Your task to perform on an android device: turn off airplane mode Image 0: 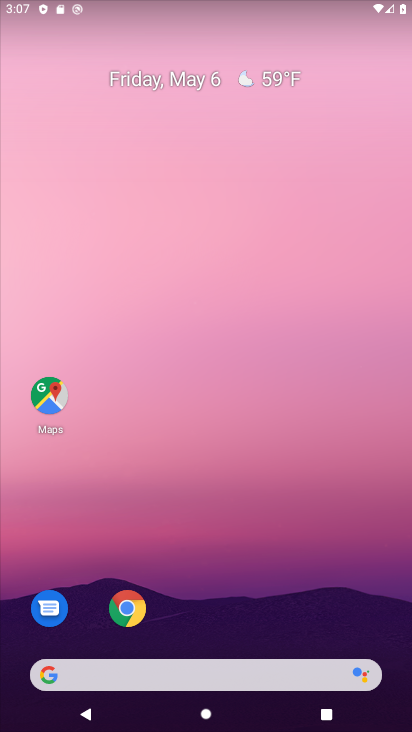
Step 0: drag from (197, 654) to (278, 171)
Your task to perform on an android device: turn off airplane mode Image 1: 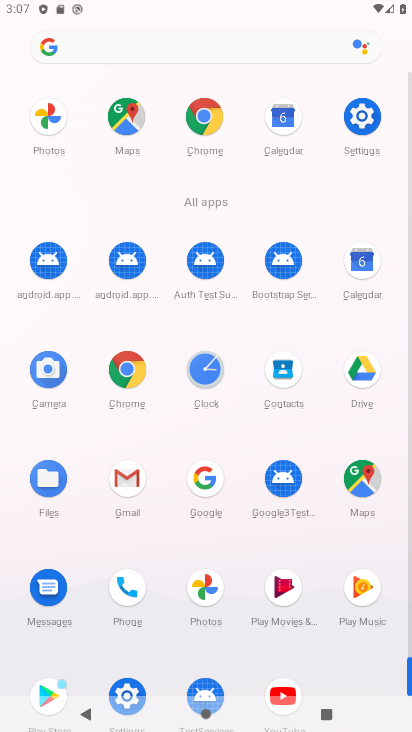
Step 1: drag from (134, 639) to (182, 451)
Your task to perform on an android device: turn off airplane mode Image 2: 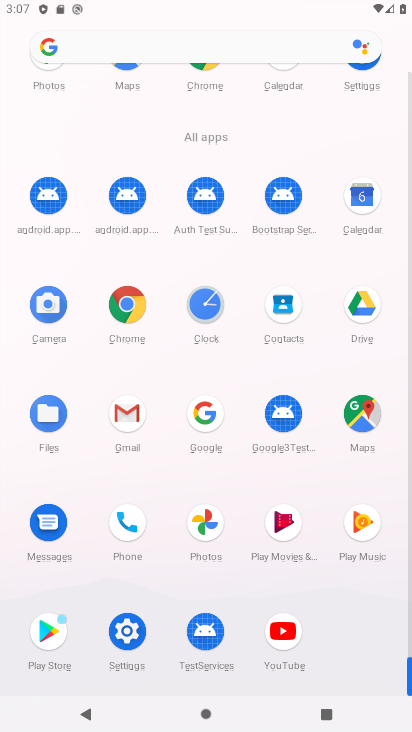
Step 2: click (127, 648)
Your task to perform on an android device: turn off airplane mode Image 3: 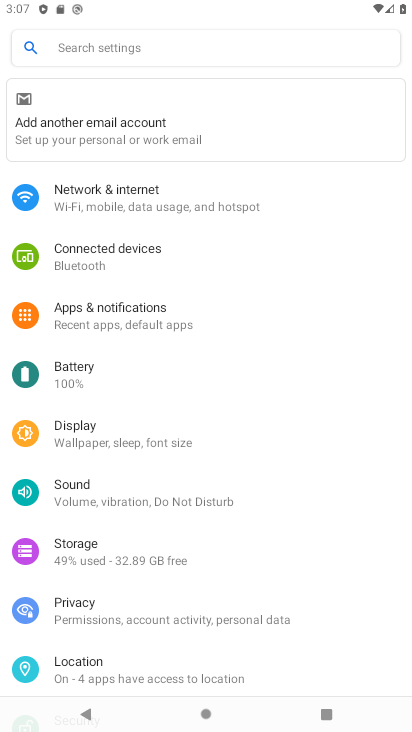
Step 3: click (189, 204)
Your task to perform on an android device: turn off airplane mode Image 4: 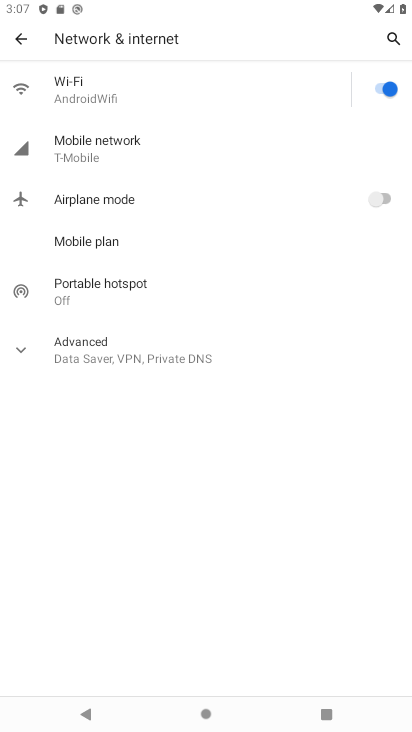
Step 4: task complete